Your task to perform on an android device: Open Google Chrome and open the bookmarks view Image 0: 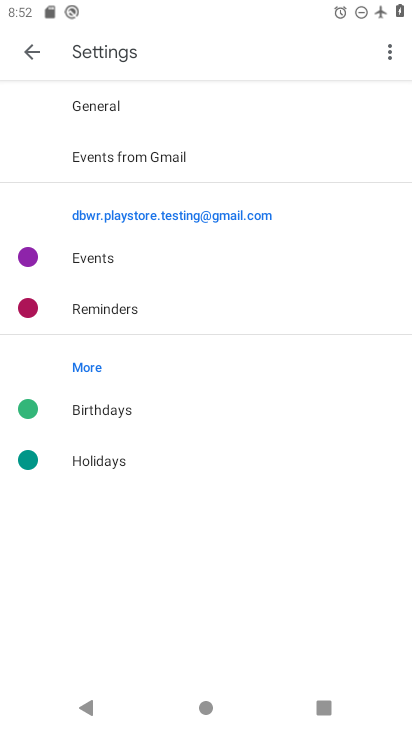
Step 0: press home button
Your task to perform on an android device: Open Google Chrome and open the bookmarks view Image 1: 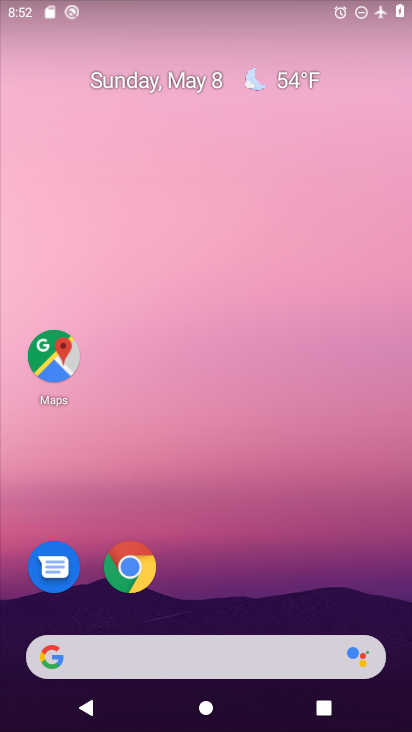
Step 1: click (128, 575)
Your task to perform on an android device: Open Google Chrome and open the bookmarks view Image 2: 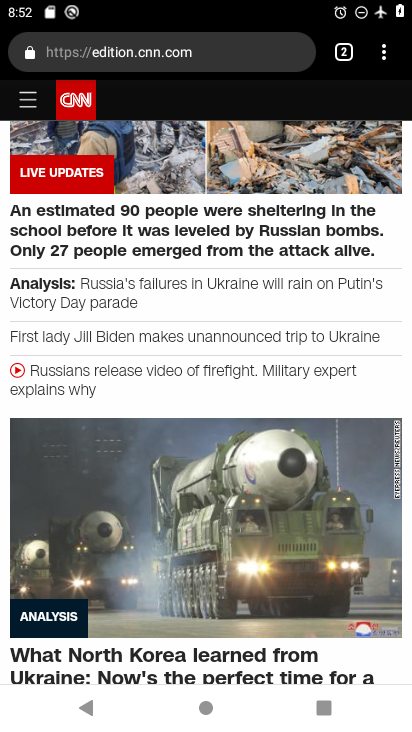
Step 2: click (383, 39)
Your task to perform on an android device: Open Google Chrome and open the bookmarks view Image 3: 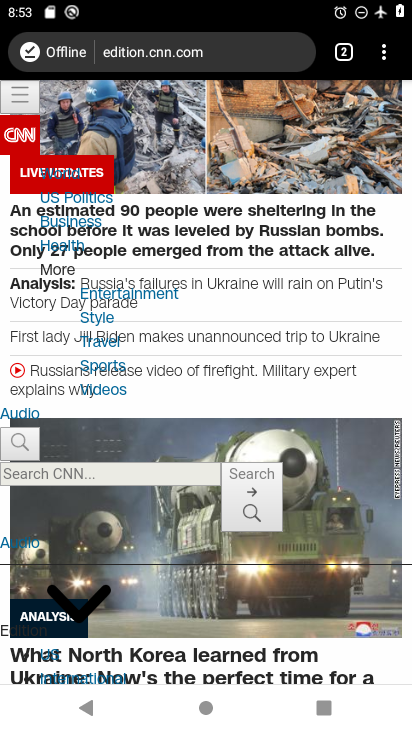
Step 3: task complete